Your task to perform on an android device: open app "Airtel Thanks" (install if not already installed) and go to login screen Image 0: 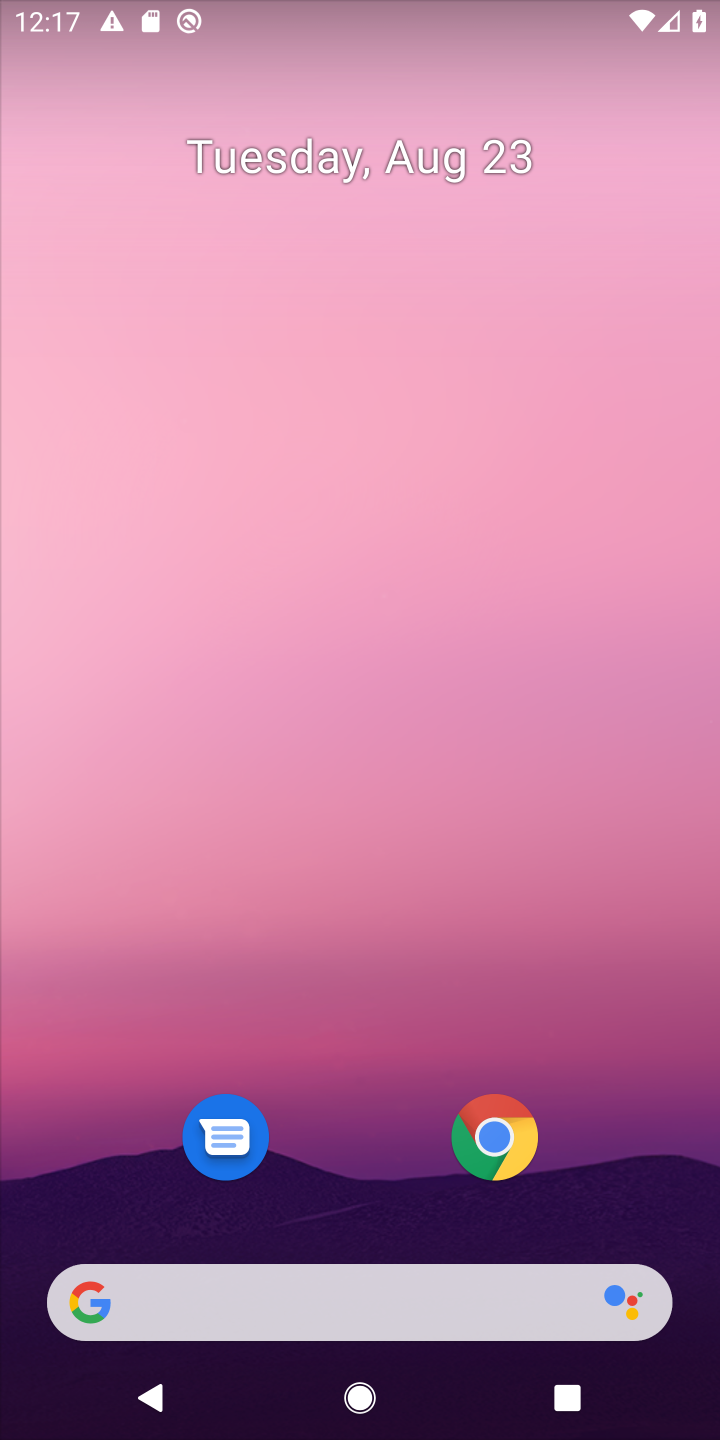
Step 0: drag from (331, 226) to (331, 149)
Your task to perform on an android device: open app "Airtel Thanks" (install if not already installed) and go to login screen Image 1: 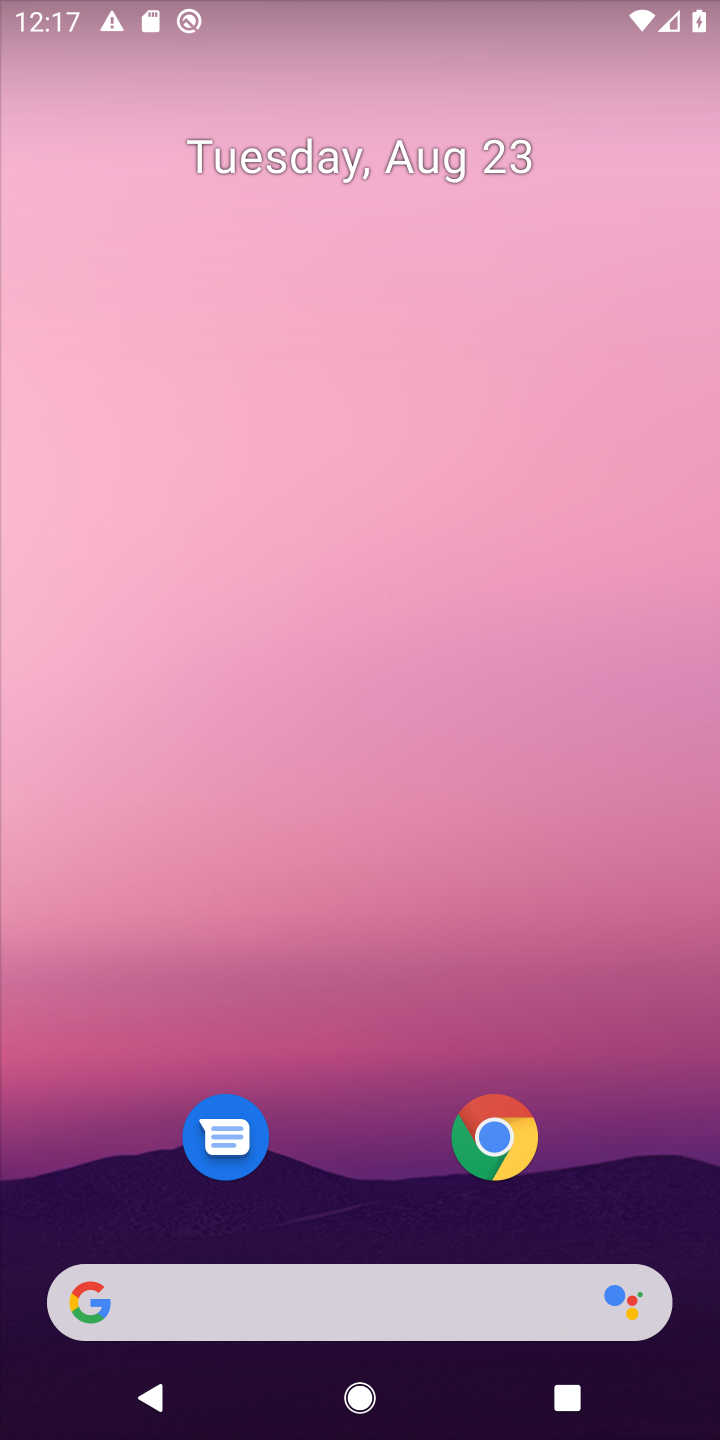
Step 1: drag from (355, 564) to (342, 3)
Your task to perform on an android device: open app "Airtel Thanks" (install if not already installed) and go to login screen Image 2: 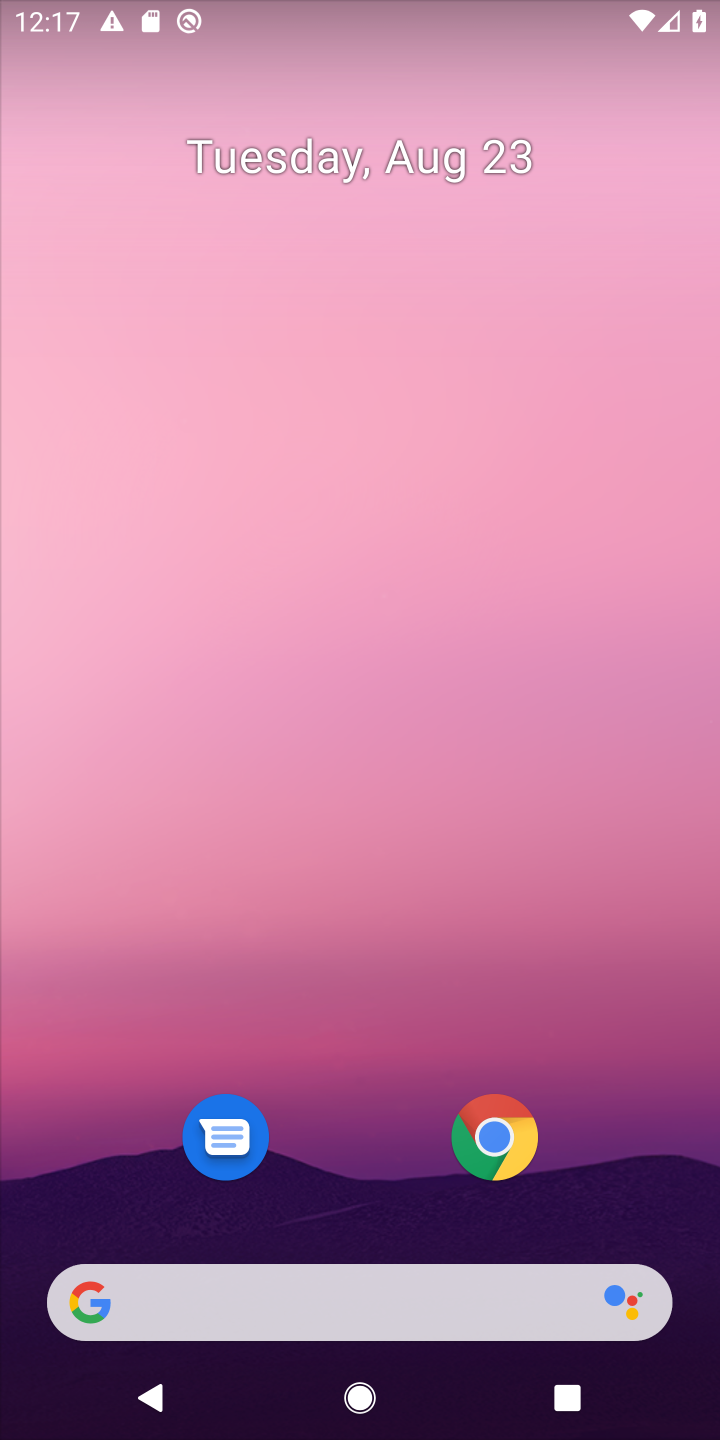
Step 2: drag from (342, 851) to (346, 142)
Your task to perform on an android device: open app "Airtel Thanks" (install if not already installed) and go to login screen Image 3: 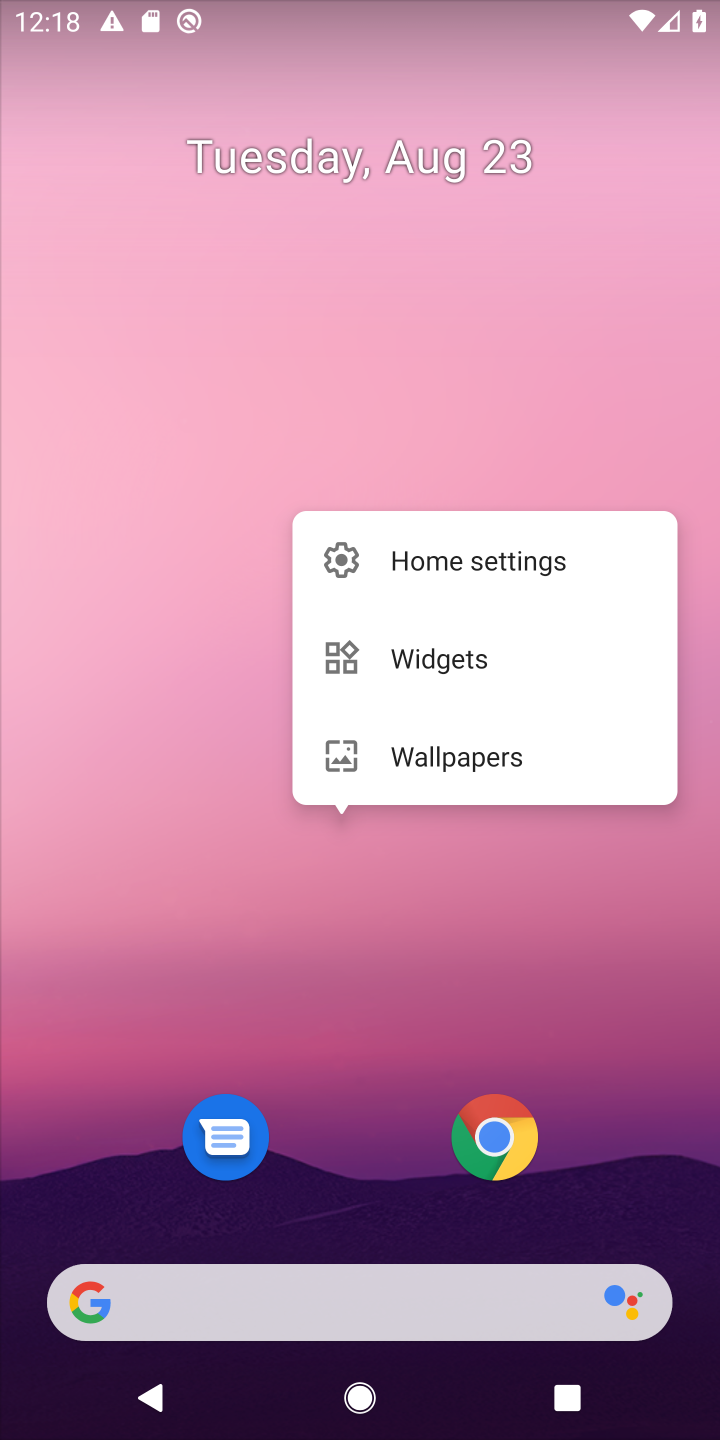
Step 3: click (336, 1181)
Your task to perform on an android device: open app "Airtel Thanks" (install if not already installed) and go to login screen Image 4: 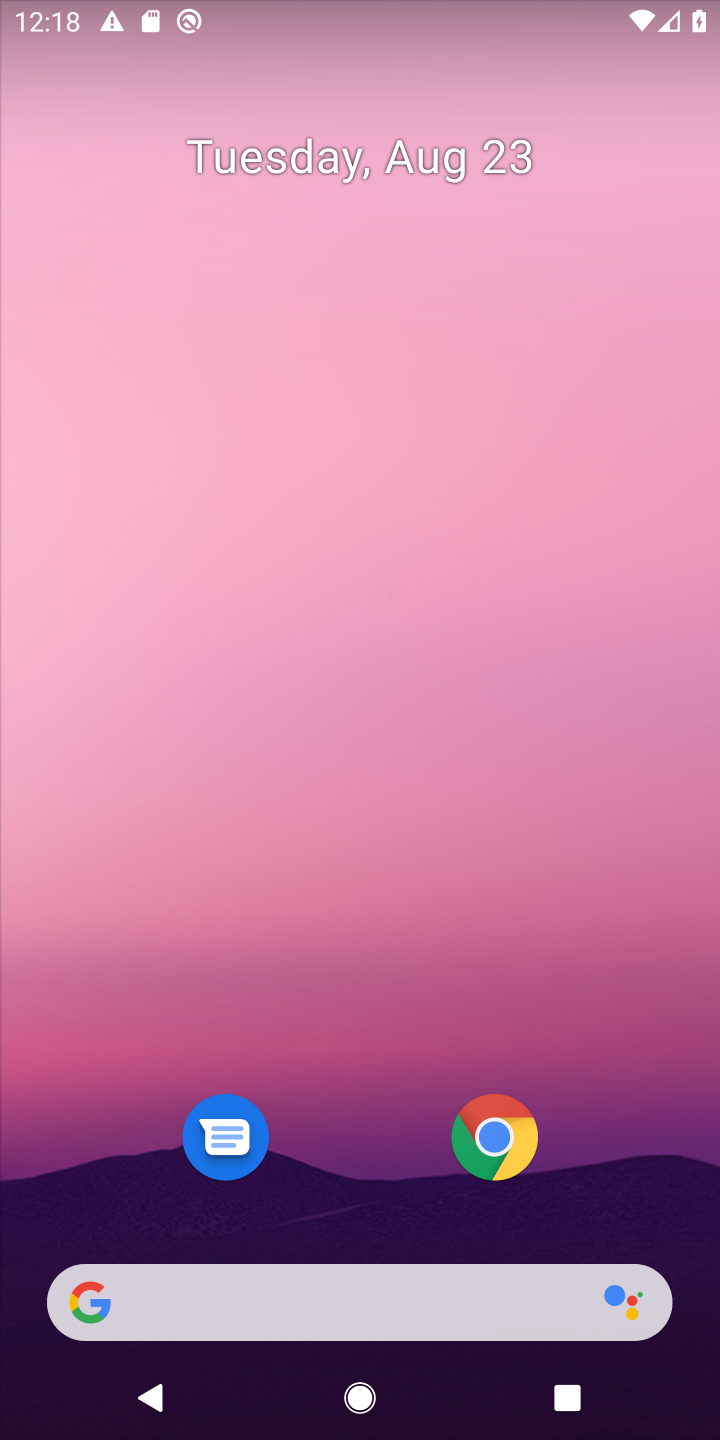
Step 4: drag from (366, 849) to (366, 66)
Your task to perform on an android device: open app "Airtel Thanks" (install if not already installed) and go to login screen Image 5: 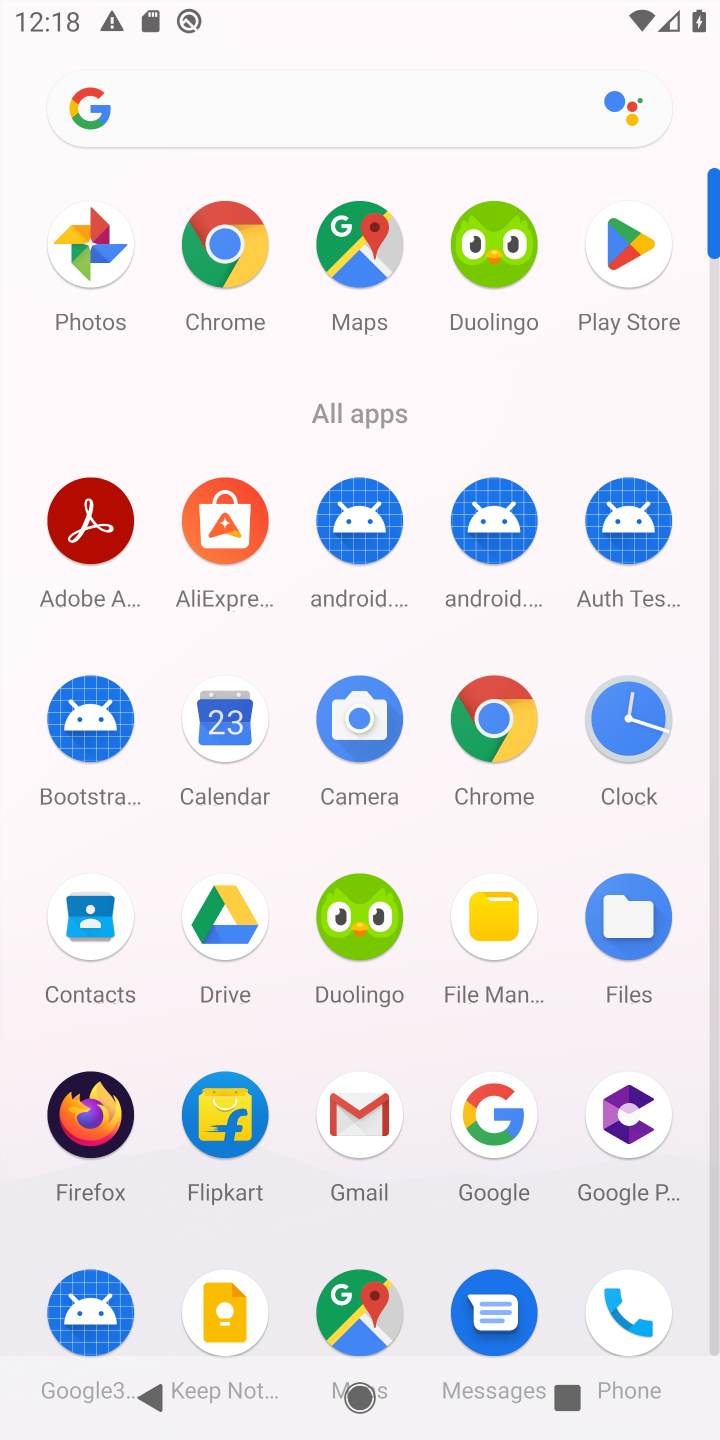
Step 5: click (635, 244)
Your task to perform on an android device: open app "Airtel Thanks" (install if not already installed) and go to login screen Image 6: 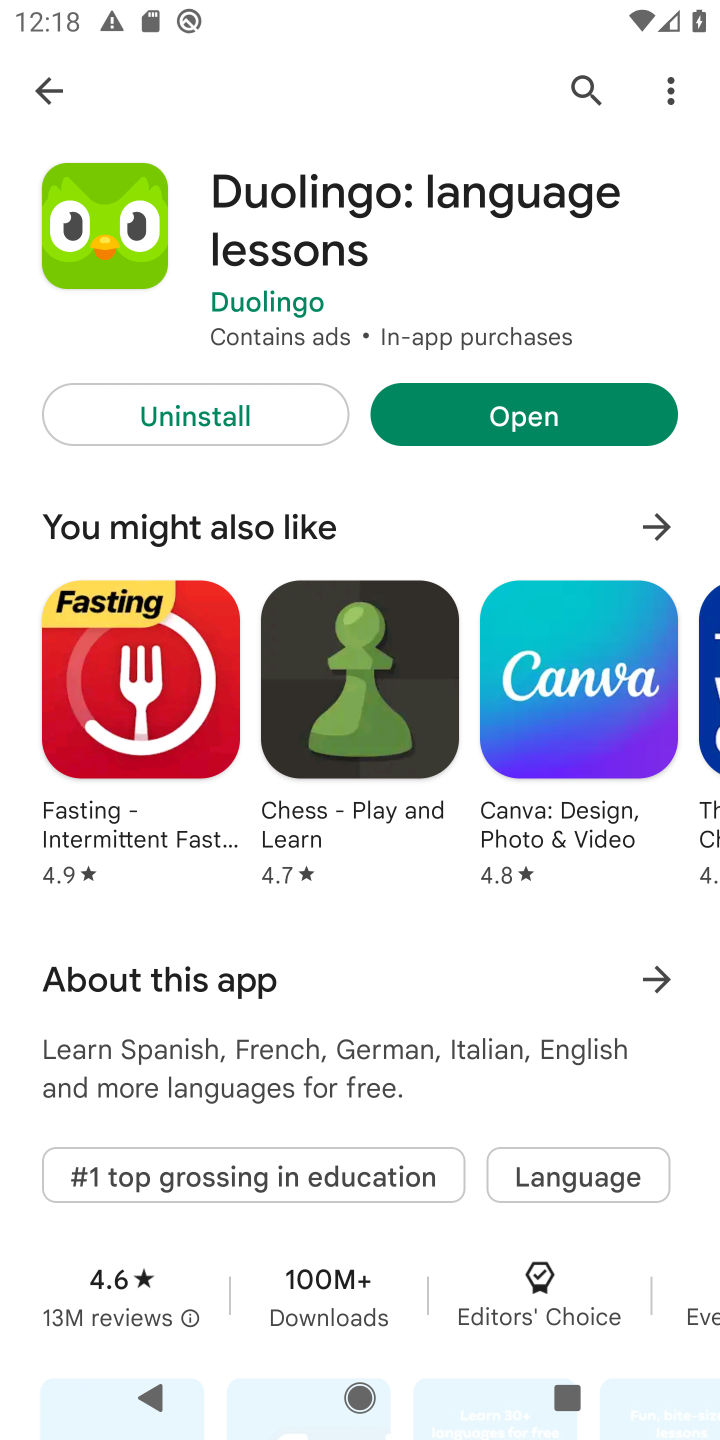
Step 6: click (43, 81)
Your task to perform on an android device: open app "Airtel Thanks" (install if not already installed) and go to login screen Image 7: 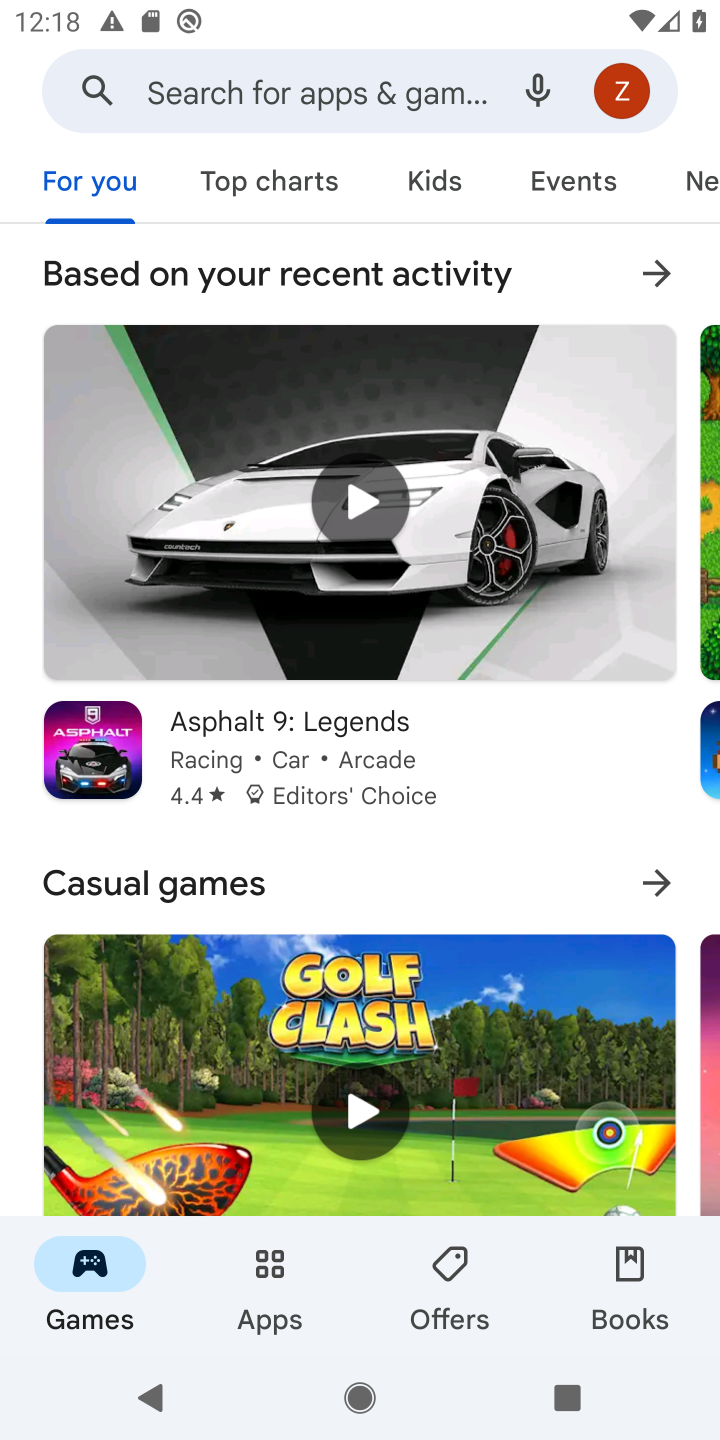
Step 7: click (289, 97)
Your task to perform on an android device: open app "Airtel Thanks" (install if not already installed) and go to login screen Image 8: 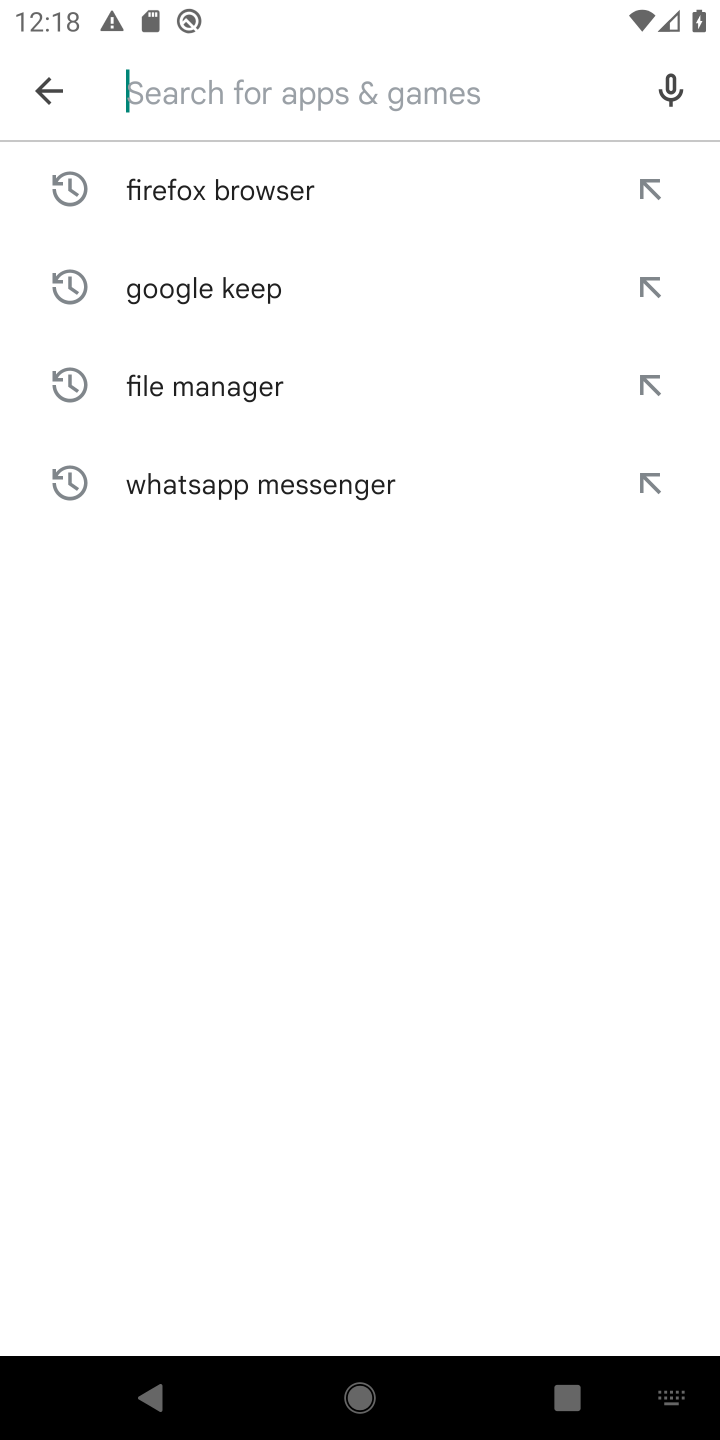
Step 8: type "Airtel Thanks"
Your task to perform on an android device: open app "Airtel Thanks" (install if not already installed) and go to login screen Image 9: 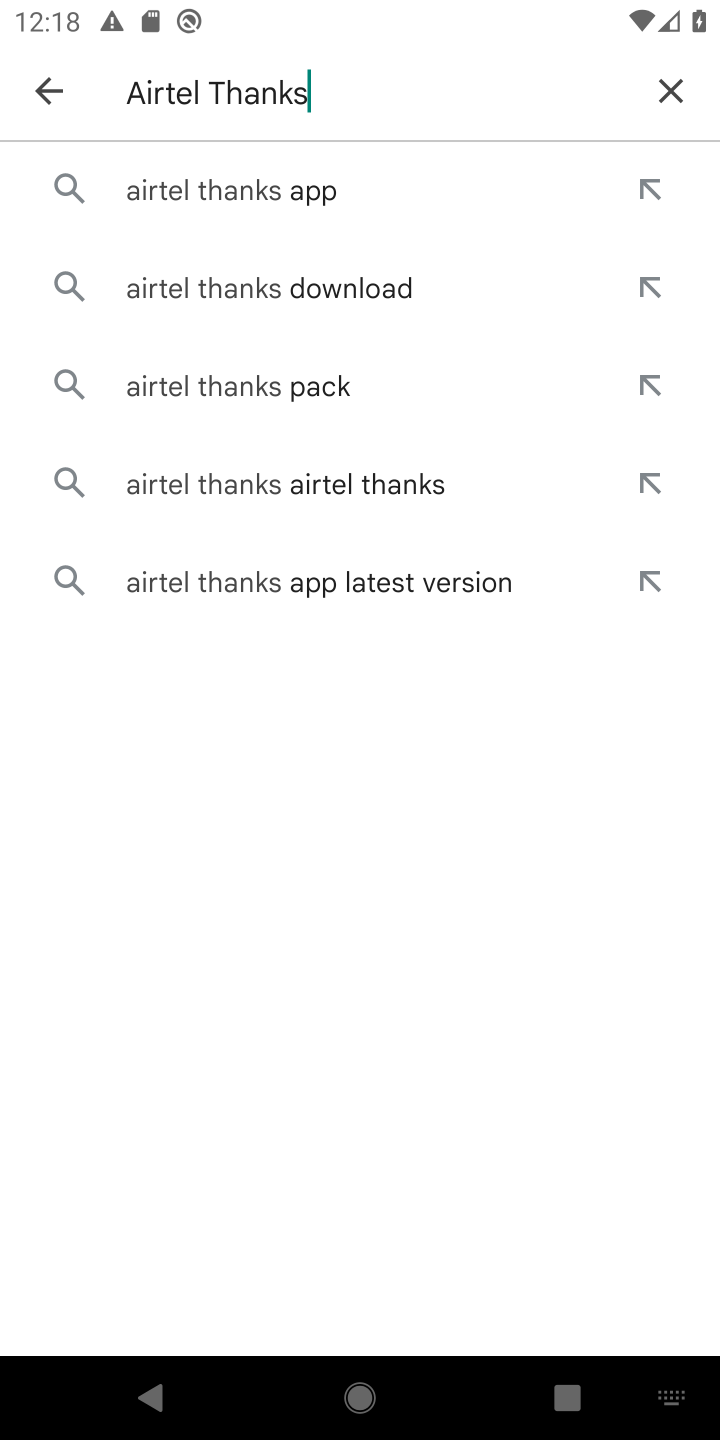
Step 9: click (284, 197)
Your task to perform on an android device: open app "Airtel Thanks" (install if not already installed) and go to login screen Image 10: 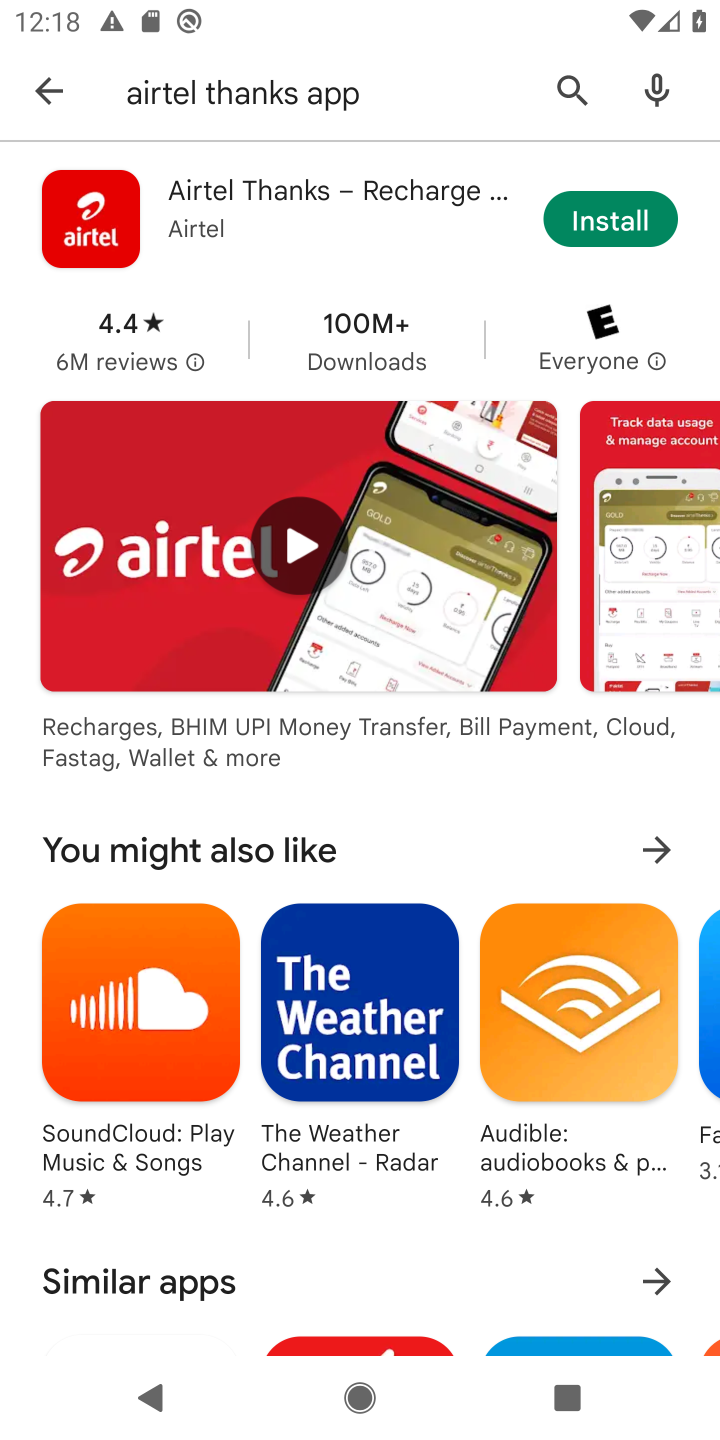
Step 10: click (600, 204)
Your task to perform on an android device: open app "Airtel Thanks" (install if not already installed) and go to login screen Image 11: 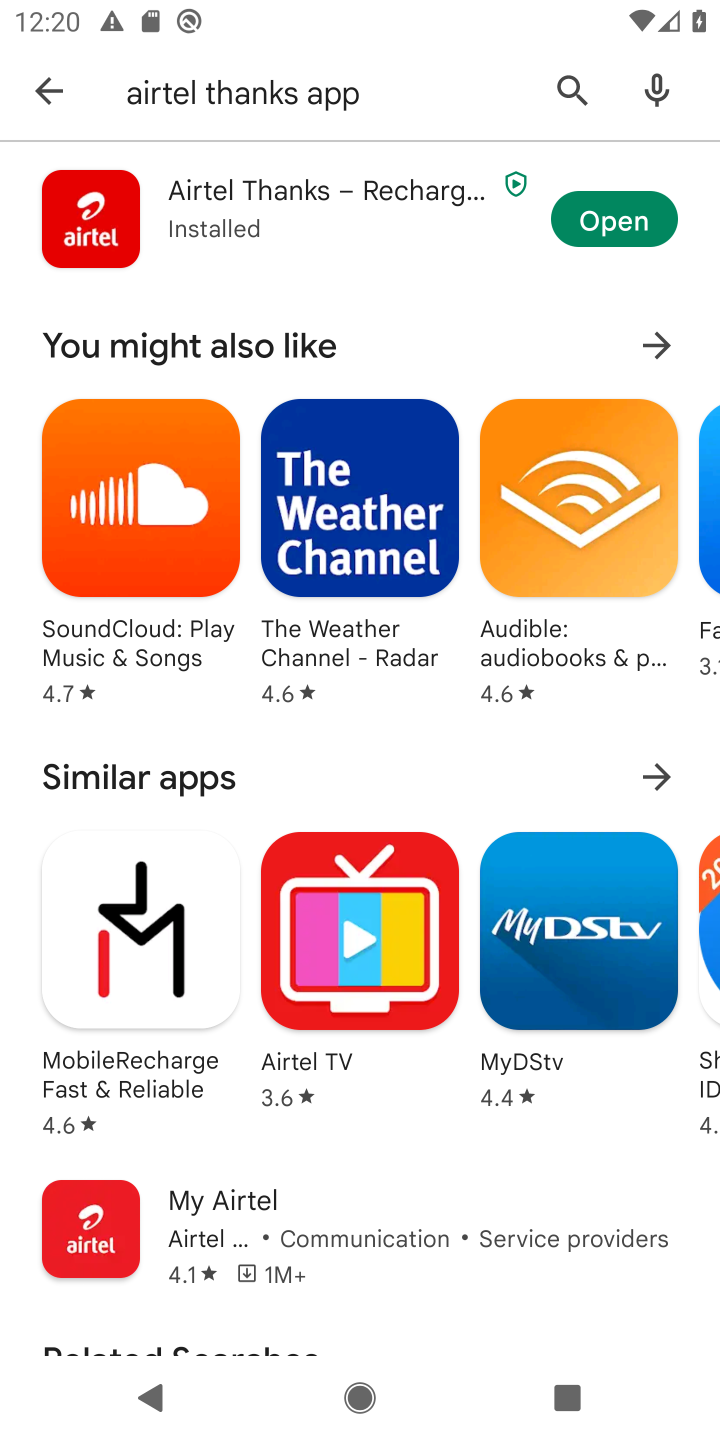
Step 11: click (631, 214)
Your task to perform on an android device: open app "Airtel Thanks" (install if not already installed) and go to login screen Image 12: 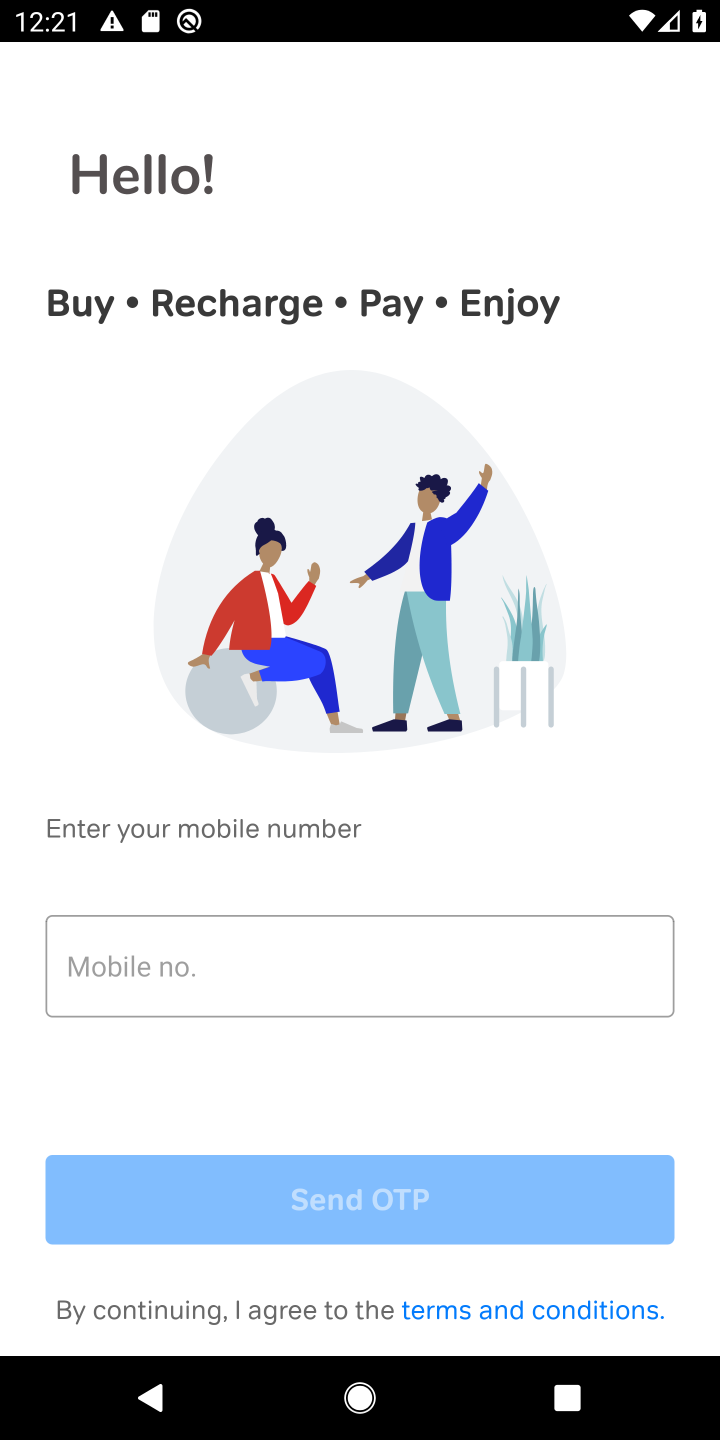
Step 12: task complete